Your task to perform on an android device: delete a single message in the gmail app Image 0: 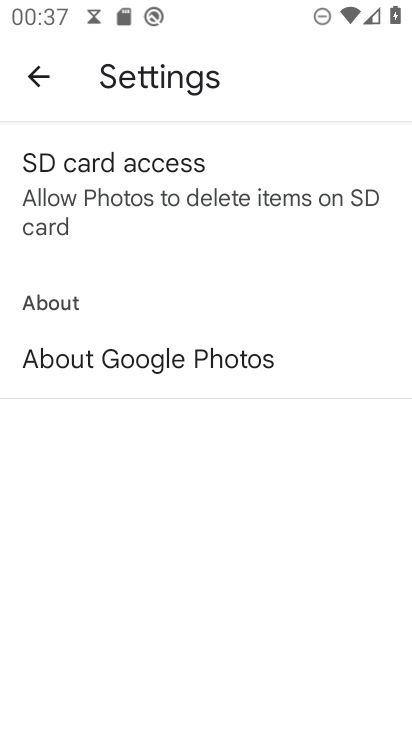
Step 0: press home button
Your task to perform on an android device: delete a single message in the gmail app Image 1: 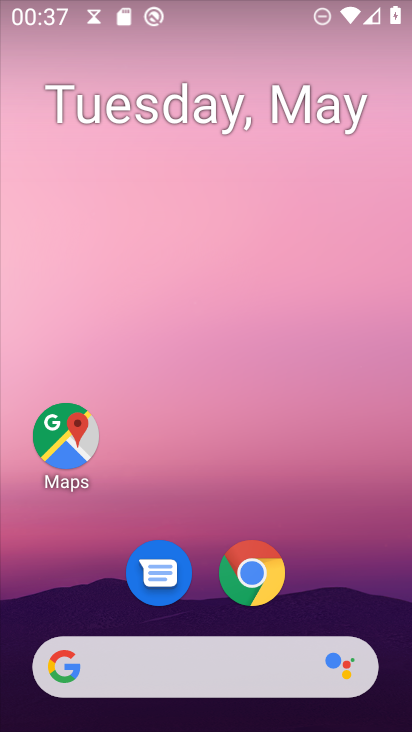
Step 1: drag from (336, 525) to (184, 5)
Your task to perform on an android device: delete a single message in the gmail app Image 2: 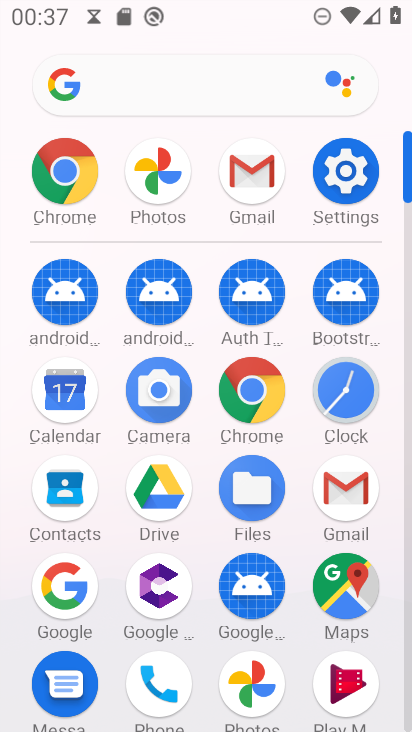
Step 2: click (260, 190)
Your task to perform on an android device: delete a single message in the gmail app Image 3: 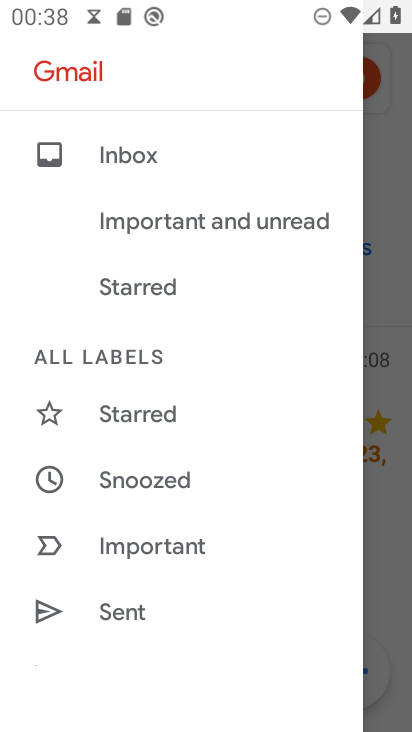
Step 3: click (125, 157)
Your task to perform on an android device: delete a single message in the gmail app Image 4: 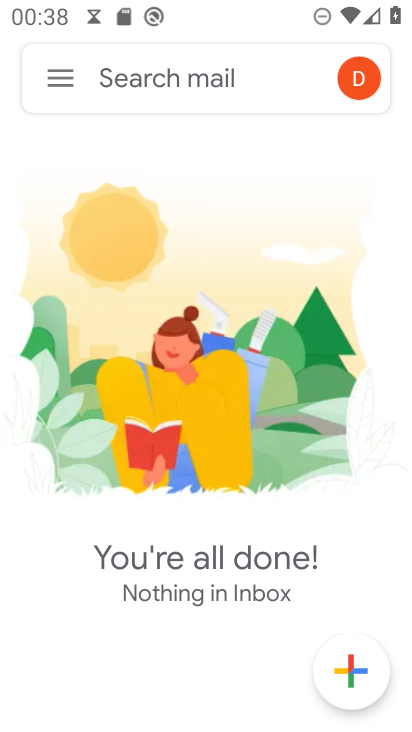
Step 4: click (69, 79)
Your task to perform on an android device: delete a single message in the gmail app Image 5: 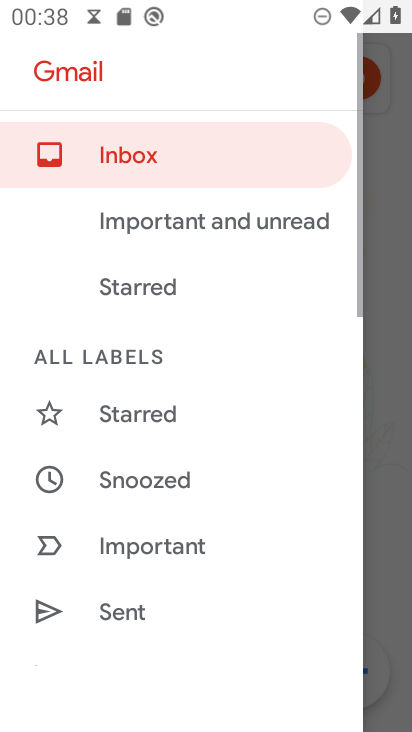
Step 5: drag from (205, 592) to (146, 179)
Your task to perform on an android device: delete a single message in the gmail app Image 6: 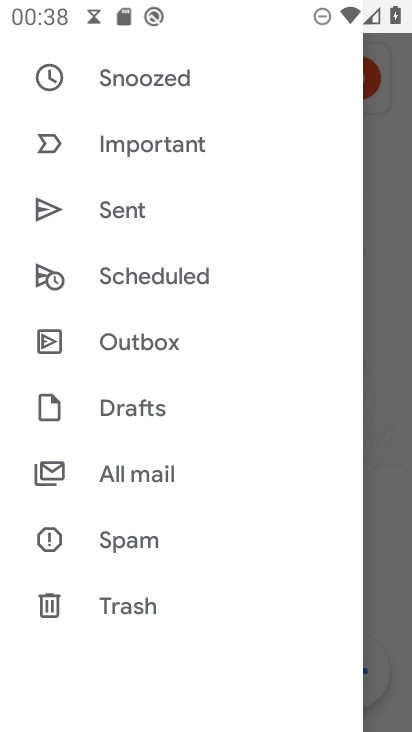
Step 6: click (183, 469)
Your task to perform on an android device: delete a single message in the gmail app Image 7: 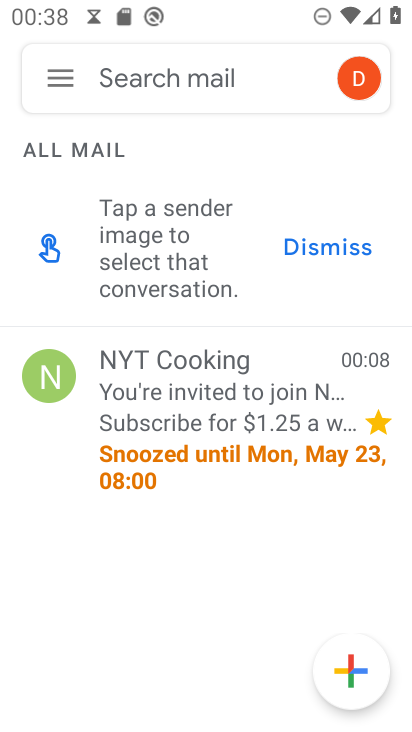
Step 7: click (202, 376)
Your task to perform on an android device: delete a single message in the gmail app Image 8: 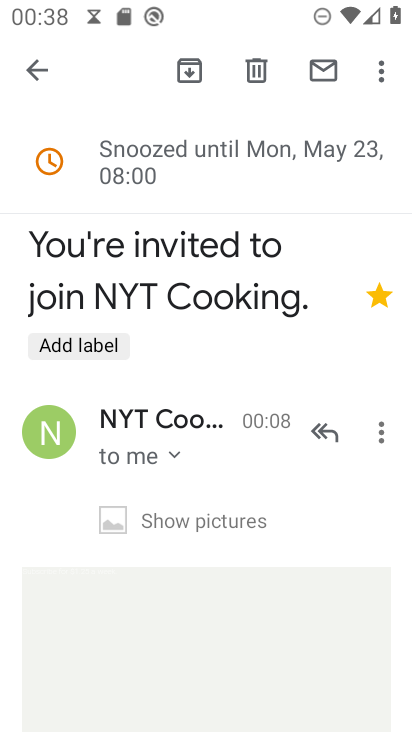
Step 8: click (253, 64)
Your task to perform on an android device: delete a single message in the gmail app Image 9: 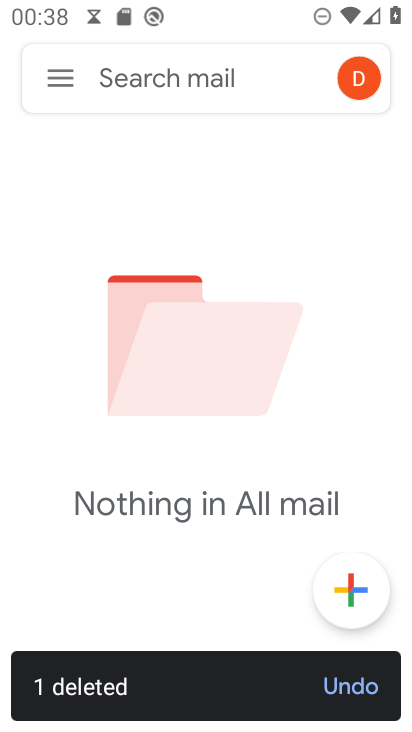
Step 9: task complete